Your task to perform on an android device: allow cookies in the chrome app Image 0: 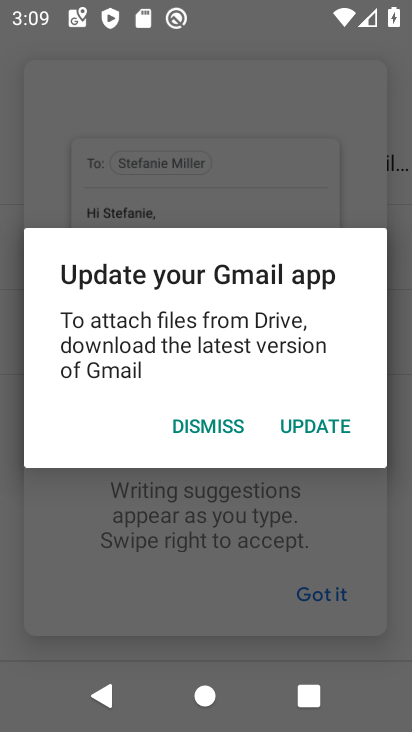
Step 0: press back button
Your task to perform on an android device: allow cookies in the chrome app Image 1: 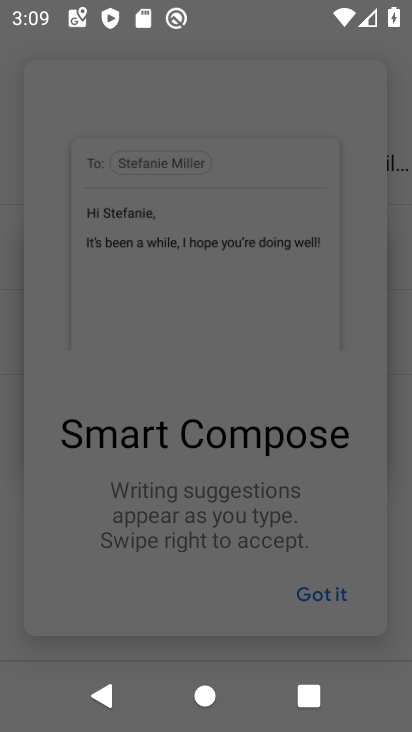
Step 1: press home button
Your task to perform on an android device: allow cookies in the chrome app Image 2: 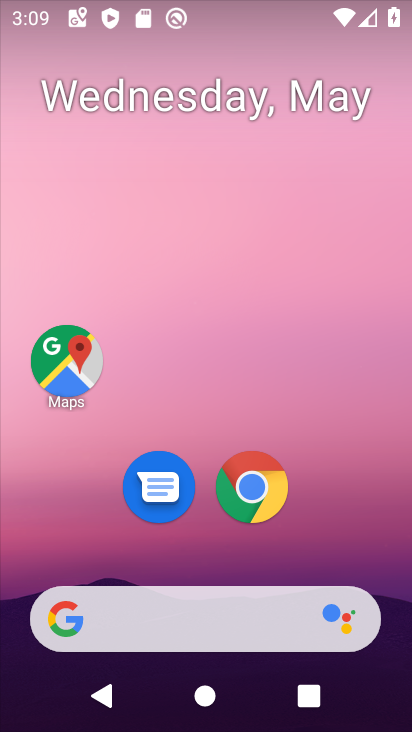
Step 2: drag from (366, 536) to (261, 19)
Your task to perform on an android device: allow cookies in the chrome app Image 3: 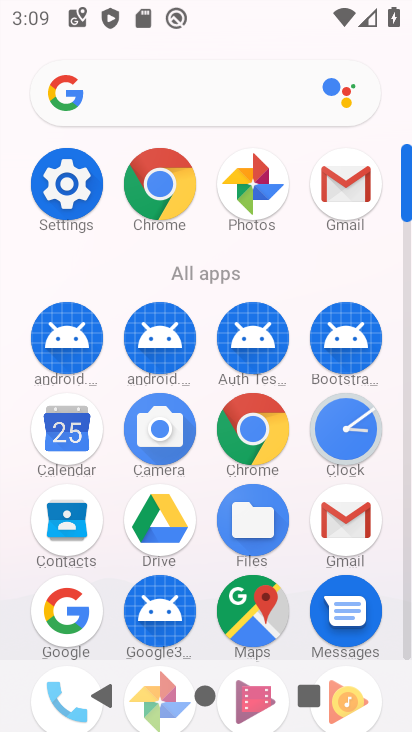
Step 3: drag from (2, 581) to (11, 302)
Your task to perform on an android device: allow cookies in the chrome app Image 4: 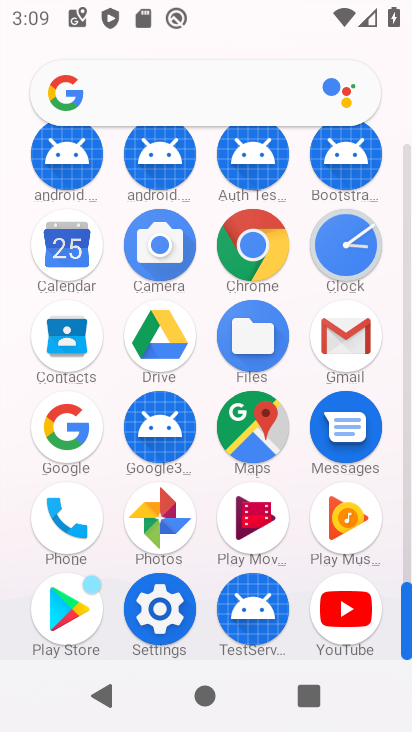
Step 4: click (251, 243)
Your task to perform on an android device: allow cookies in the chrome app Image 5: 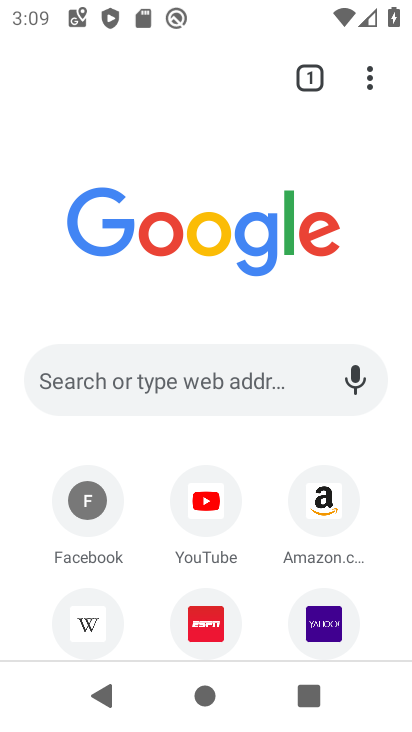
Step 5: drag from (367, 75) to (113, 546)
Your task to perform on an android device: allow cookies in the chrome app Image 6: 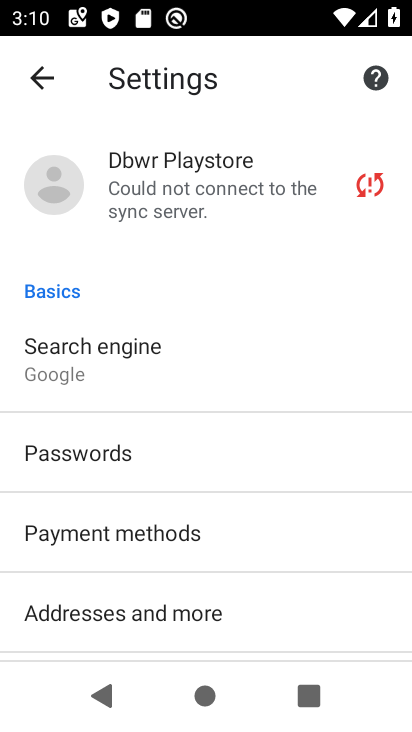
Step 6: drag from (214, 546) to (219, 244)
Your task to perform on an android device: allow cookies in the chrome app Image 7: 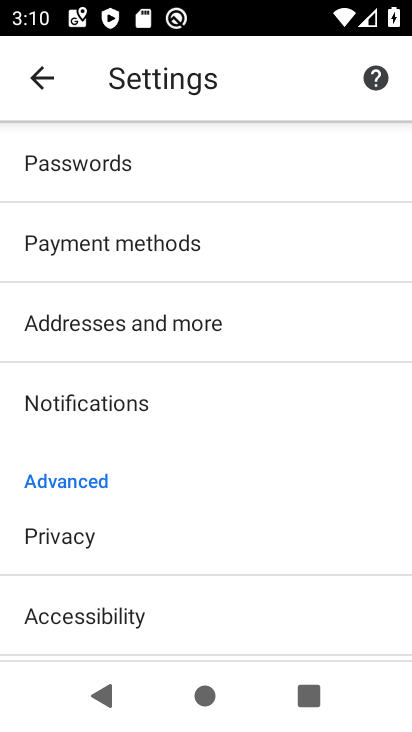
Step 7: drag from (202, 559) to (202, 174)
Your task to perform on an android device: allow cookies in the chrome app Image 8: 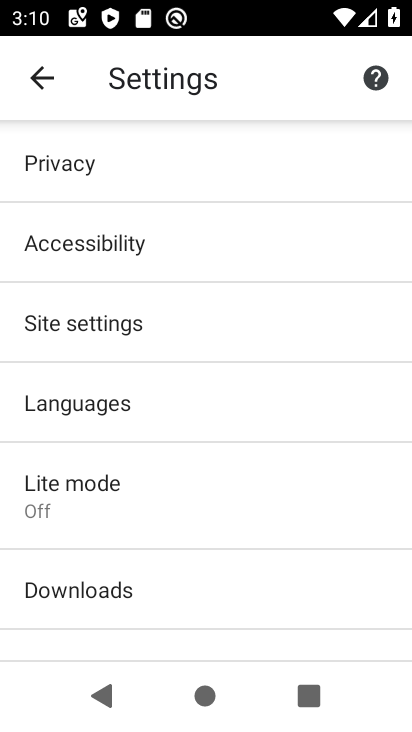
Step 8: drag from (204, 545) to (195, 215)
Your task to perform on an android device: allow cookies in the chrome app Image 9: 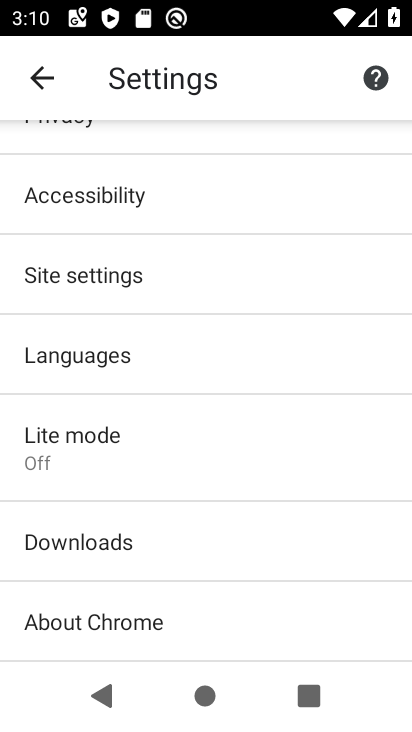
Step 9: drag from (186, 353) to (186, 590)
Your task to perform on an android device: allow cookies in the chrome app Image 10: 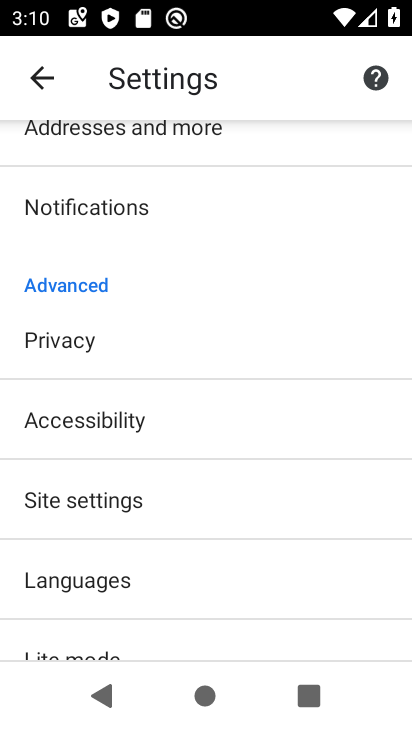
Step 10: drag from (152, 590) to (163, 329)
Your task to perform on an android device: allow cookies in the chrome app Image 11: 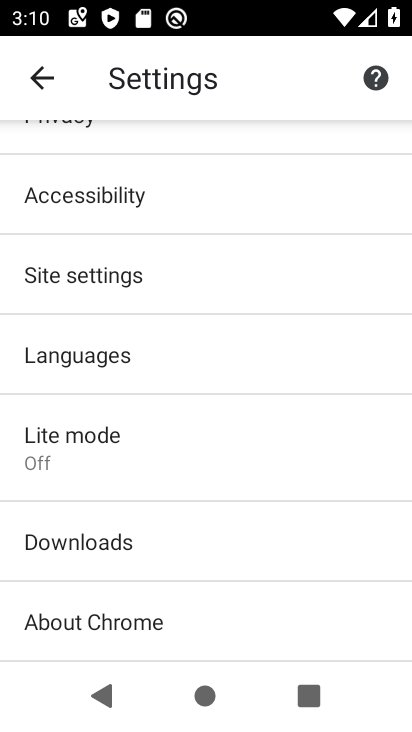
Step 11: click (119, 280)
Your task to perform on an android device: allow cookies in the chrome app Image 12: 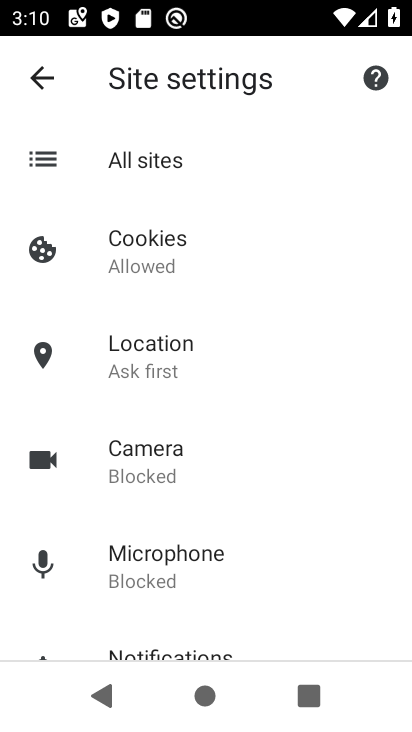
Step 12: task complete